Your task to perform on an android device: turn on wifi Image 0: 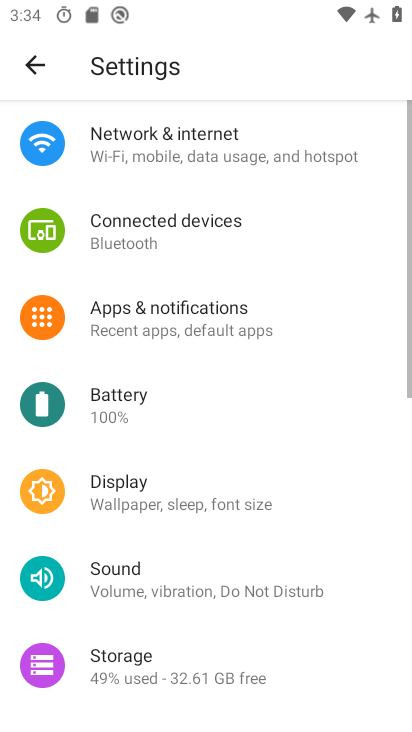
Step 0: click (40, 59)
Your task to perform on an android device: turn on wifi Image 1: 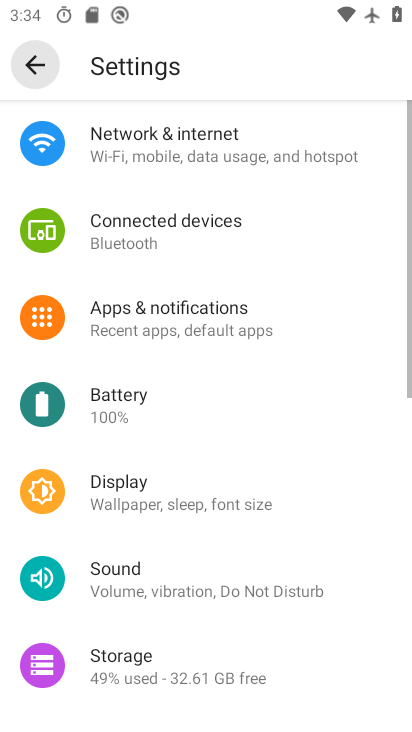
Step 1: click (40, 60)
Your task to perform on an android device: turn on wifi Image 2: 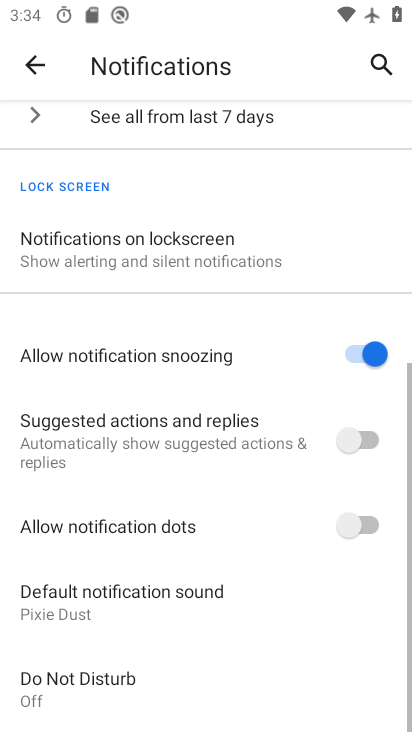
Step 2: click (40, 60)
Your task to perform on an android device: turn on wifi Image 3: 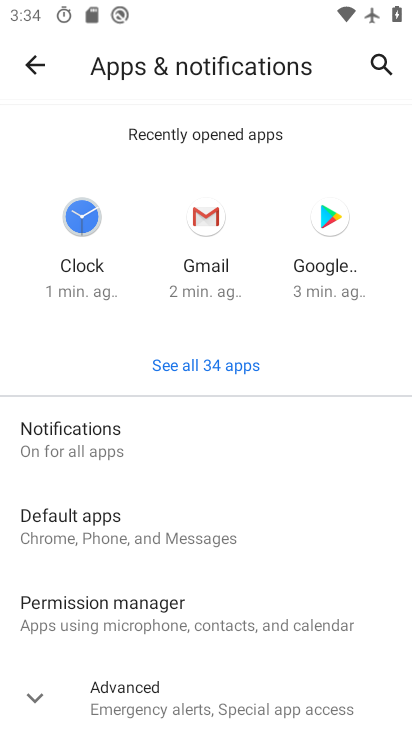
Step 3: click (28, 61)
Your task to perform on an android device: turn on wifi Image 4: 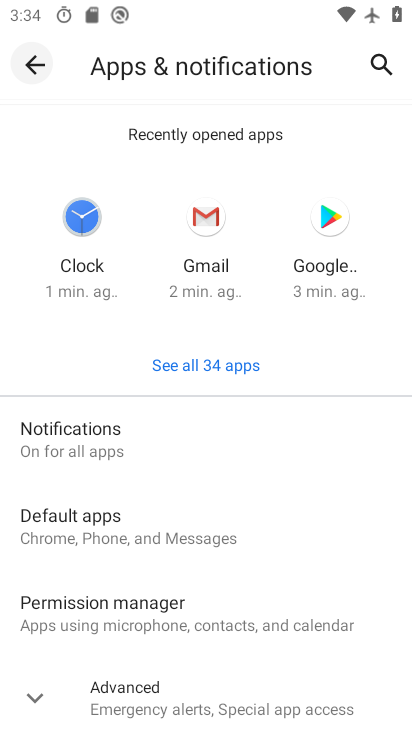
Step 4: click (28, 61)
Your task to perform on an android device: turn on wifi Image 5: 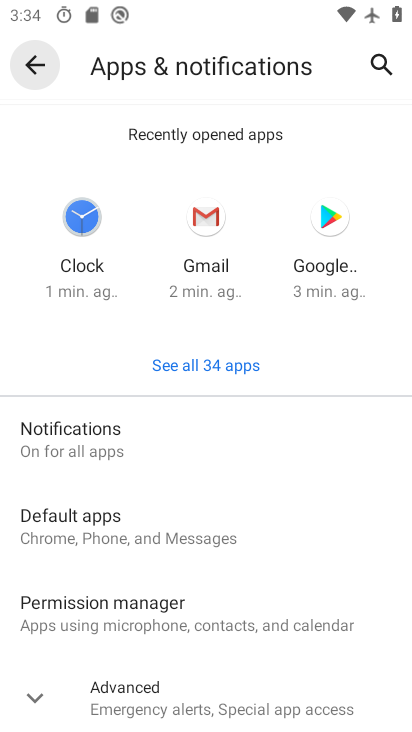
Step 5: click (29, 61)
Your task to perform on an android device: turn on wifi Image 6: 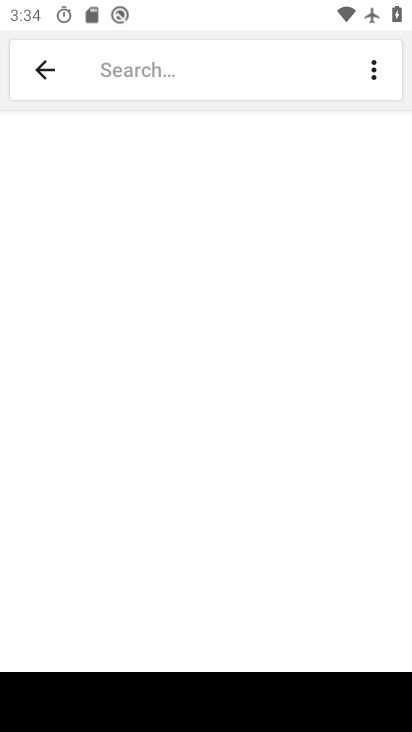
Step 6: press back button
Your task to perform on an android device: turn on wifi Image 7: 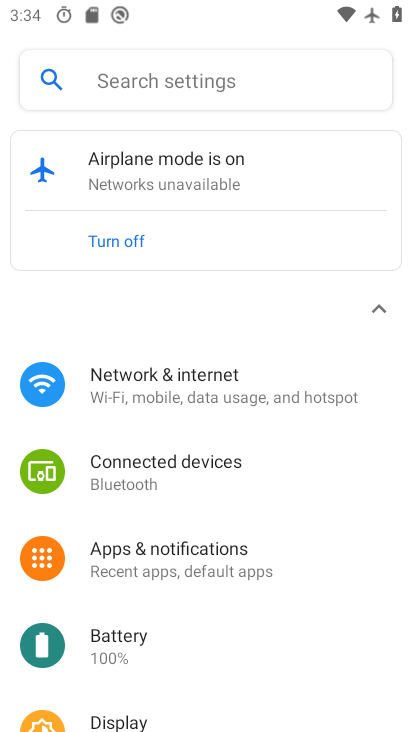
Step 7: click (43, 72)
Your task to perform on an android device: turn on wifi Image 8: 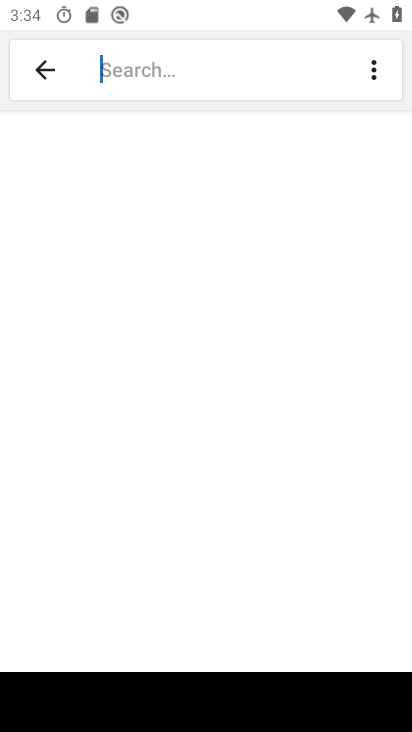
Step 8: click (44, 62)
Your task to perform on an android device: turn on wifi Image 9: 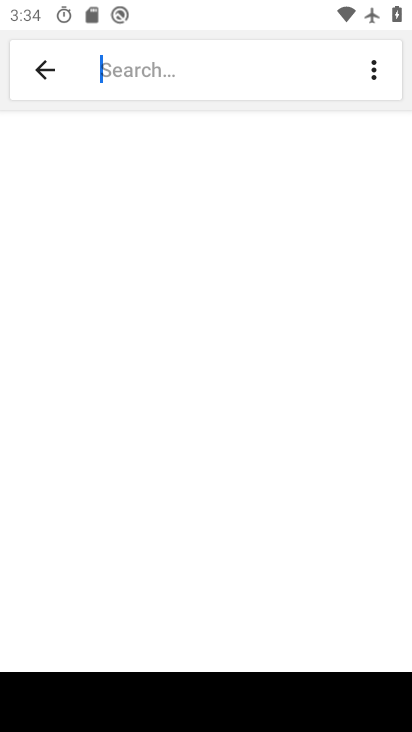
Step 9: click (44, 62)
Your task to perform on an android device: turn on wifi Image 10: 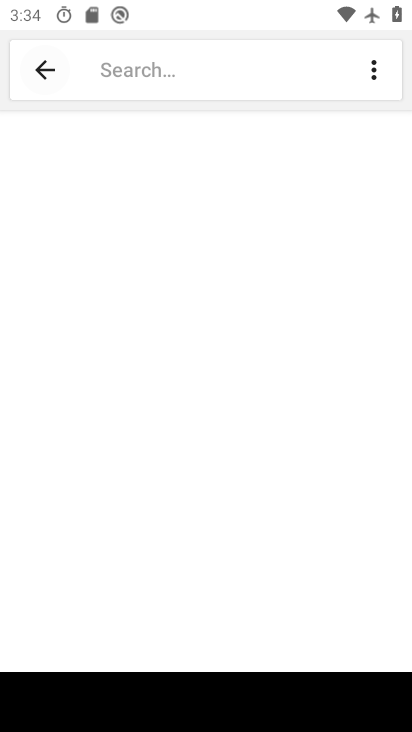
Step 10: click (46, 61)
Your task to perform on an android device: turn on wifi Image 11: 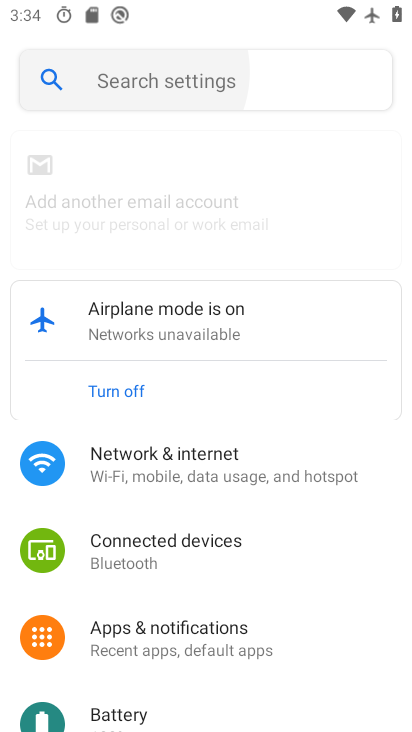
Step 11: click (51, 57)
Your task to perform on an android device: turn on wifi Image 12: 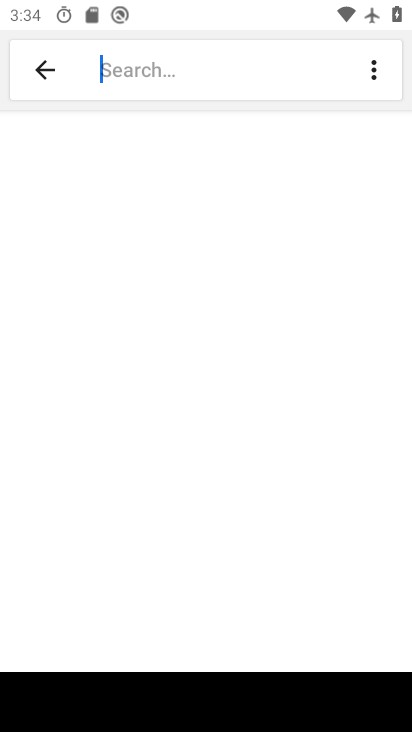
Step 12: press home button
Your task to perform on an android device: turn on wifi Image 13: 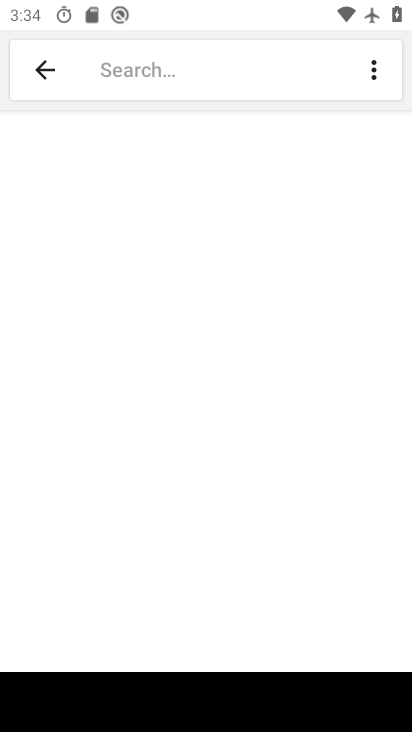
Step 13: press home button
Your task to perform on an android device: turn on wifi Image 14: 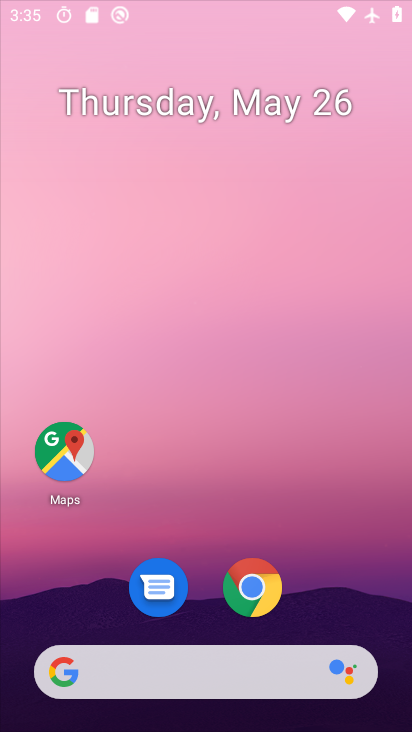
Step 14: press home button
Your task to perform on an android device: turn on wifi Image 15: 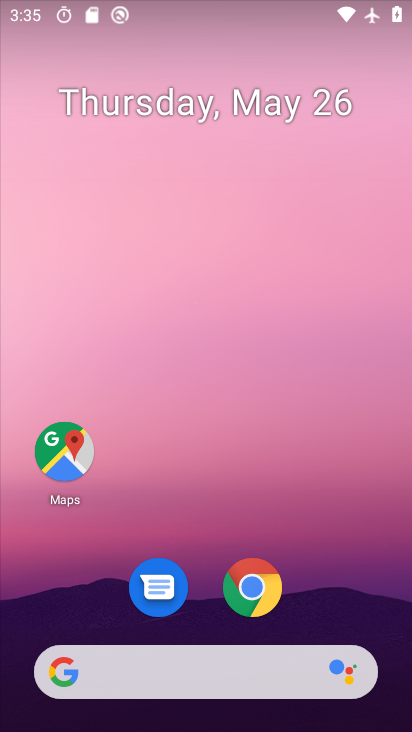
Step 15: drag from (212, 553) to (145, 241)
Your task to perform on an android device: turn on wifi Image 16: 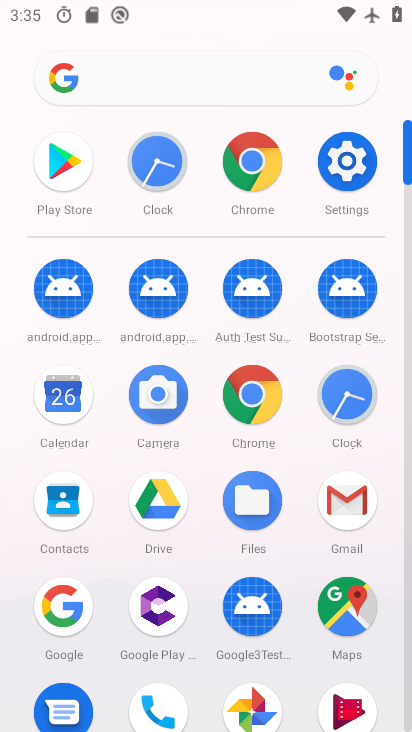
Step 16: click (346, 168)
Your task to perform on an android device: turn on wifi Image 17: 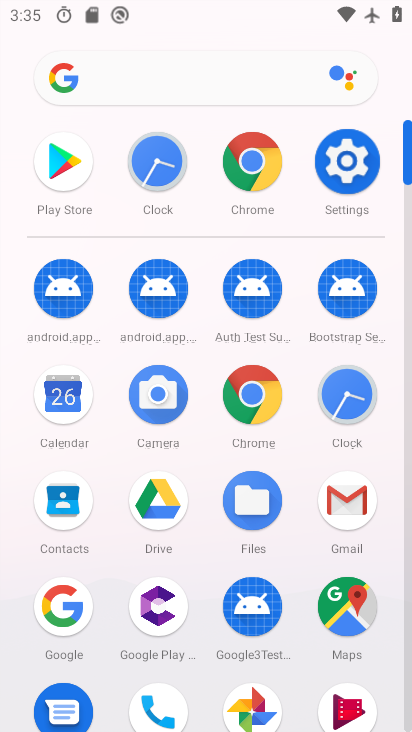
Step 17: click (347, 167)
Your task to perform on an android device: turn on wifi Image 18: 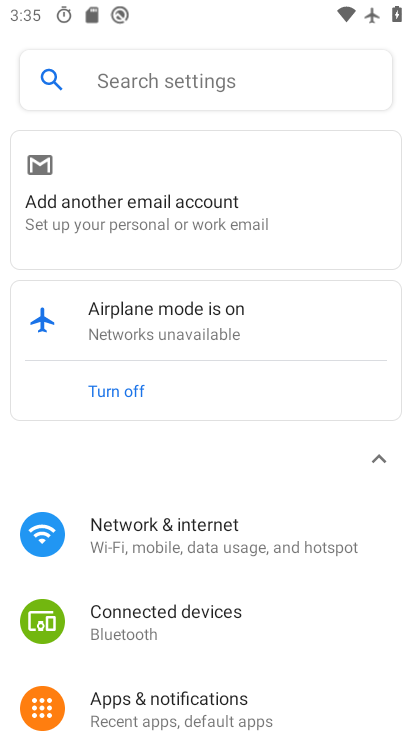
Step 18: drag from (198, 546) to (183, 258)
Your task to perform on an android device: turn on wifi Image 19: 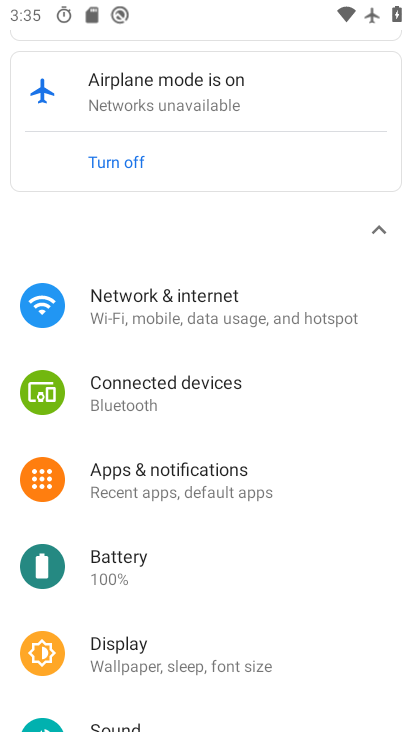
Step 19: drag from (144, 446) to (145, 110)
Your task to perform on an android device: turn on wifi Image 20: 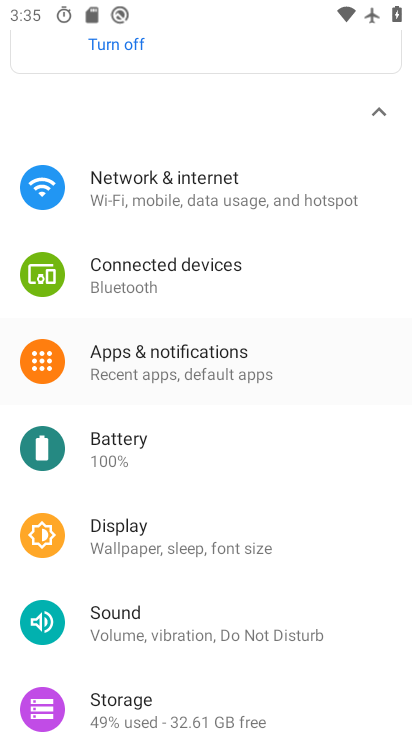
Step 20: drag from (167, 489) to (171, 265)
Your task to perform on an android device: turn on wifi Image 21: 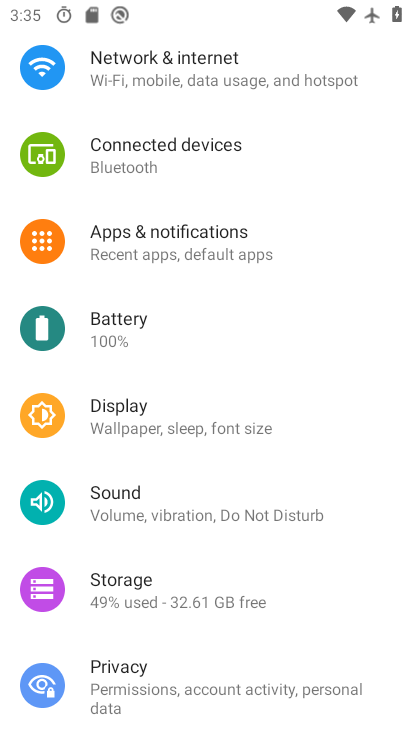
Step 21: drag from (147, 531) to (148, 288)
Your task to perform on an android device: turn on wifi Image 22: 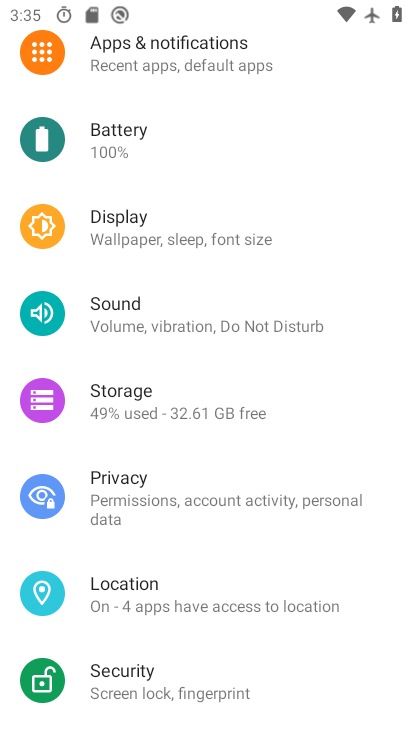
Step 22: drag from (156, 483) to (154, 232)
Your task to perform on an android device: turn on wifi Image 23: 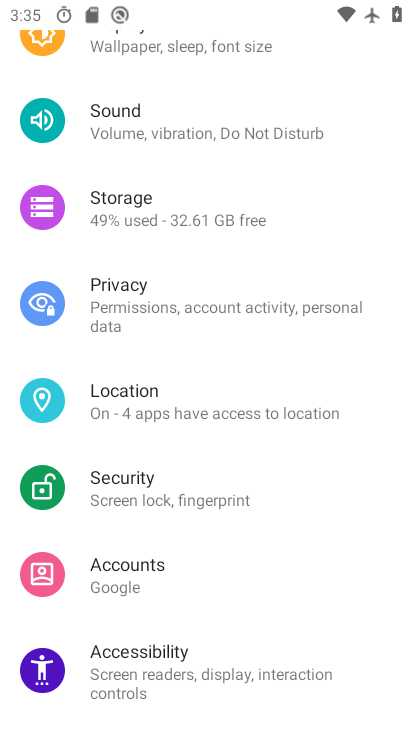
Step 23: drag from (164, 488) to (112, 116)
Your task to perform on an android device: turn on wifi Image 24: 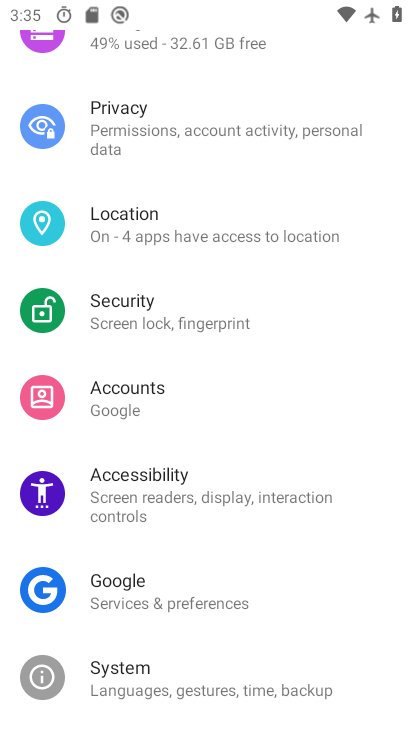
Step 24: drag from (145, 238) to (141, 137)
Your task to perform on an android device: turn on wifi Image 25: 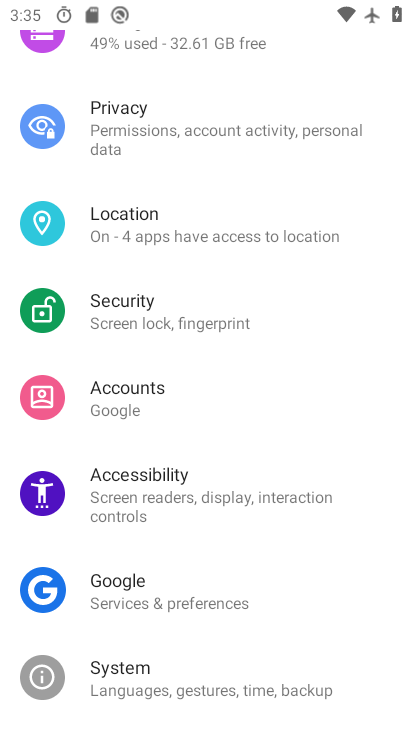
Step 25: drag from (199, 458) to (148, 136)
Your task to perform on an android device: turn on wifi Image 26: 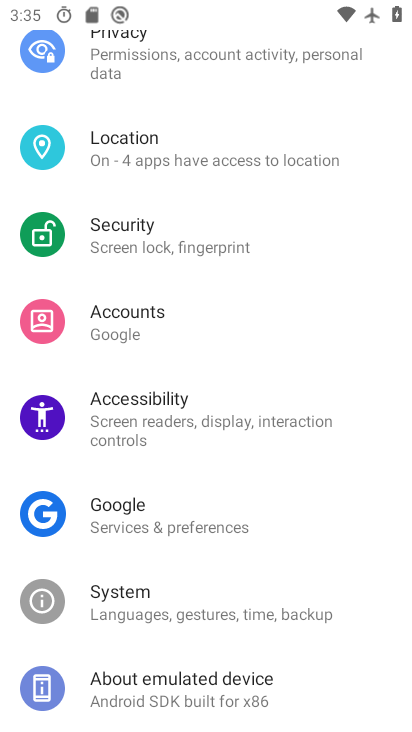
Step 26: drag from (113, 181) to (178, 557)
Your task to perform on an android device: turn on wifi Image 27: 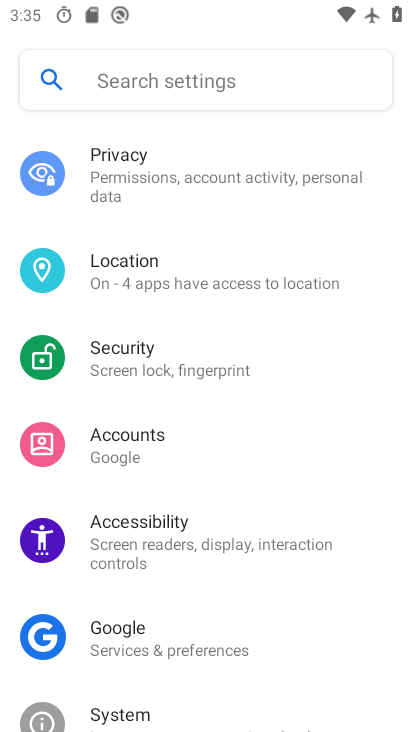
Step 27: drag from (84, 97) to (165, 448)
Your task to perform on an android device: turn on wifi Image 28: 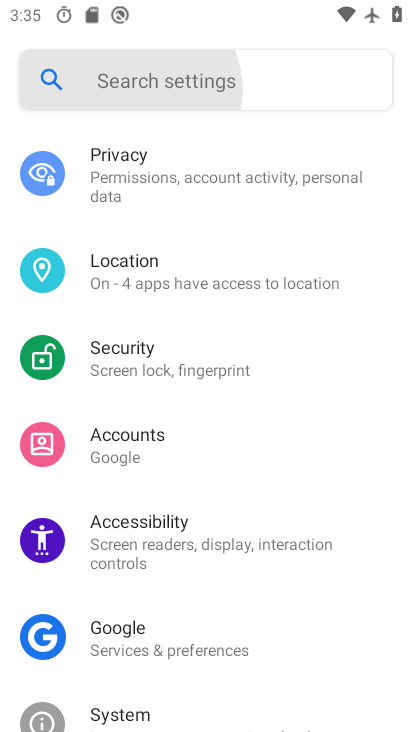
Step 28: drag from (150, 151) to (230, 467)
Your task to perform on an android device: turn on wifi Image 29: 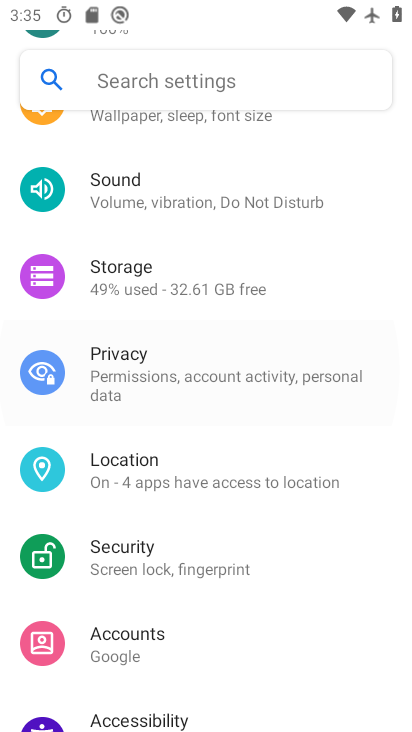
Step 29: drag from (164, 223) to (221, 456)
Your task to perform on an android device: turn on wifi Image 30: 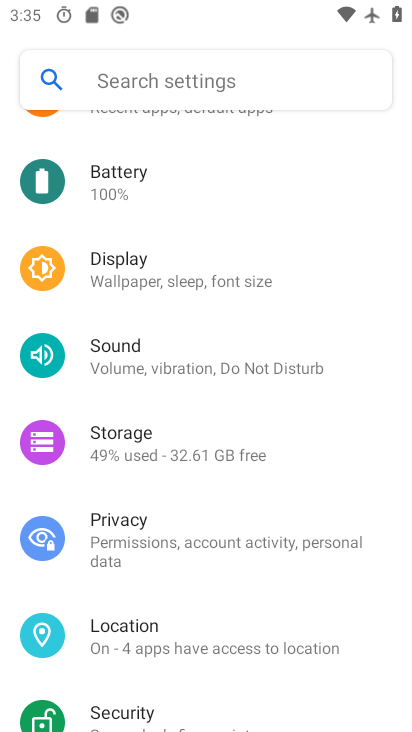
Step 30: drag from (185, 188) to (258, 590)
Your task to perform on an android device: turn on wifi Image 31: 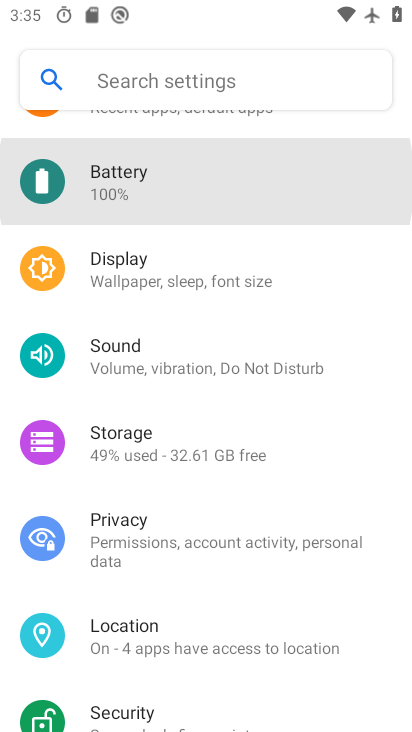
Step 31: drag from (173, 247) to (236, 619)
Your task to perform on an android device: turn on wifi Image 32: 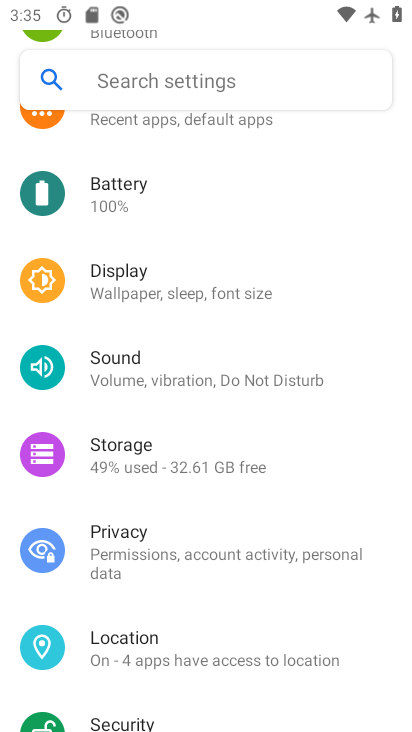
Step 32: drag from (171, 186) to (154, 505)
Your task to perform on an android device: turn on wifi Image 33: 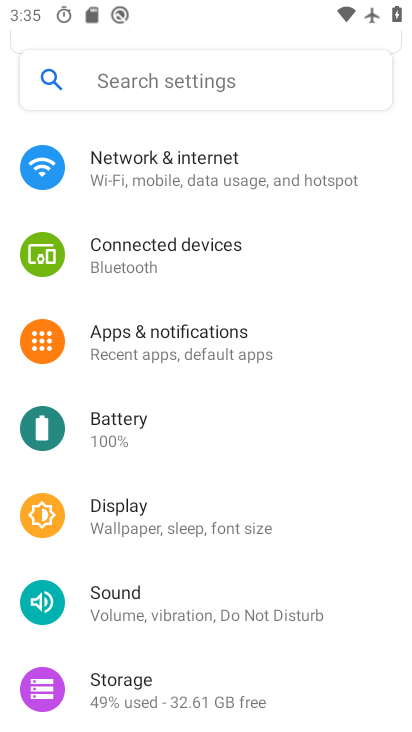
Step 33: drag from (140, 182) to (299, 435)
Your task to perform on an android device: turn on wifi Image 34: 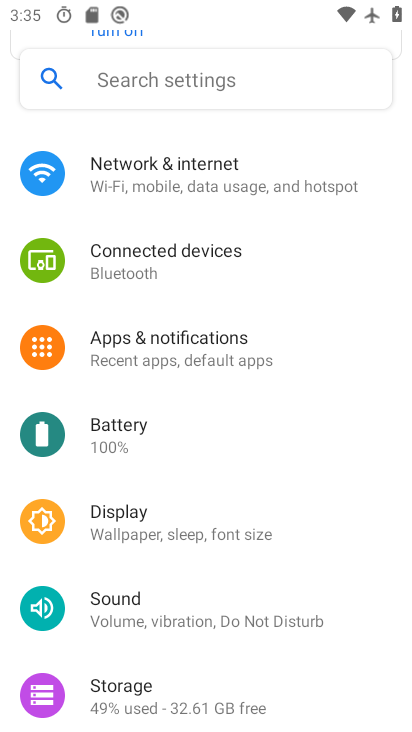
Step 34: click (184, 180)
Your task to perform on an android device: turn on wifi Image 35: 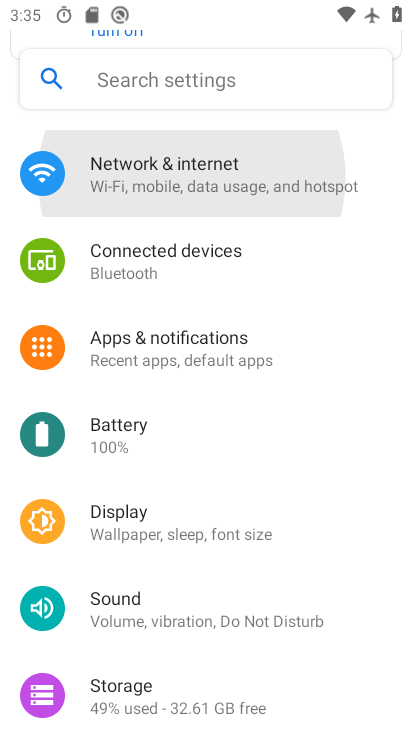
Step 35: task complete